Your task to perform on an android device: Open the calendar app, open the side menu, and click the "Day" option Image 0: 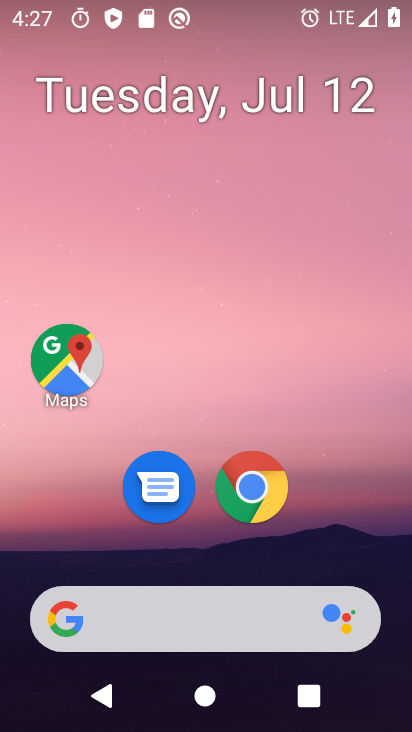
Step 0: drag from (181, 601) to (296, 30)
Your task to perform on an android device: Open the calendar app, open the side menu, and click the "Day" option Image 1: 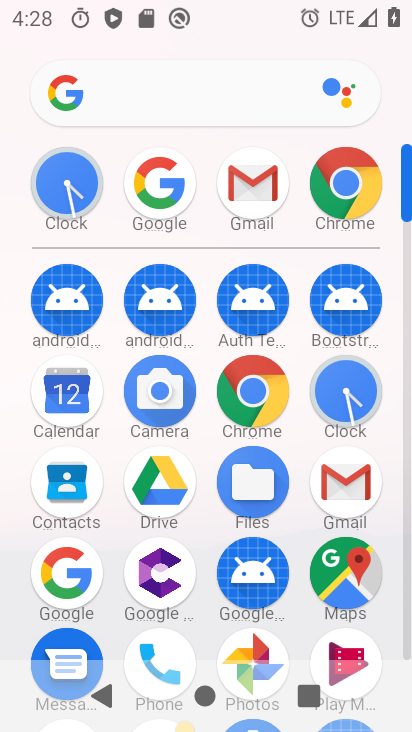
Step 1: drag from (203, 548) to (300, 212)
Your task to perform on an android device: Open the calendar app, open the side menu, and click the "Day" option Image 2: 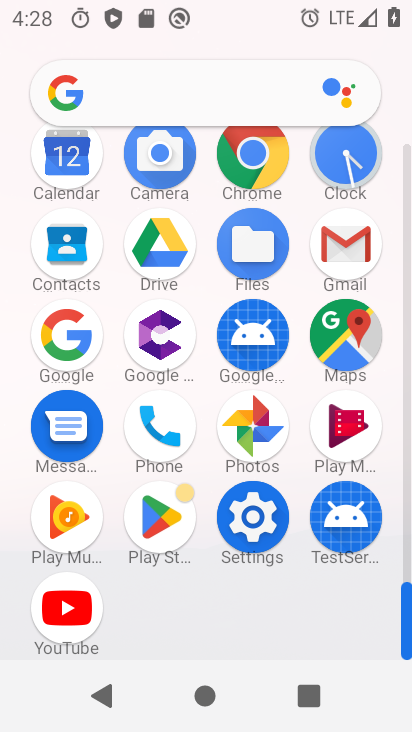
Step 2: drag from (248, 283) to (244, 589)
Your task to perform on an android device: Open the calendar app, open the side menu, and click the "Day" option Image 3: 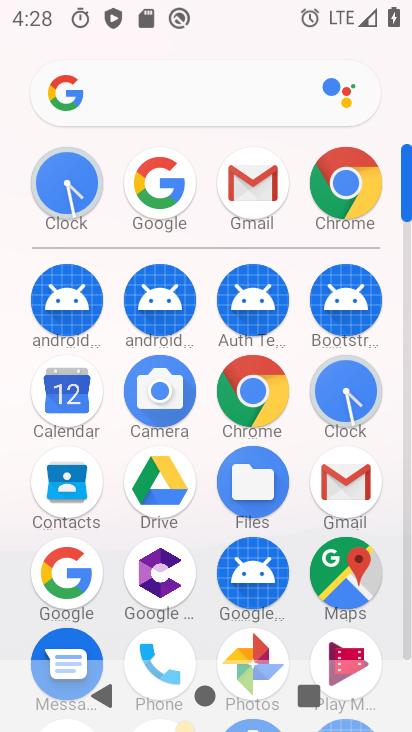
Step 3: click (67, 411)
Your task to perform on an android device: Open the calendar app, open the side menu, and click the "Day" option Image 4: 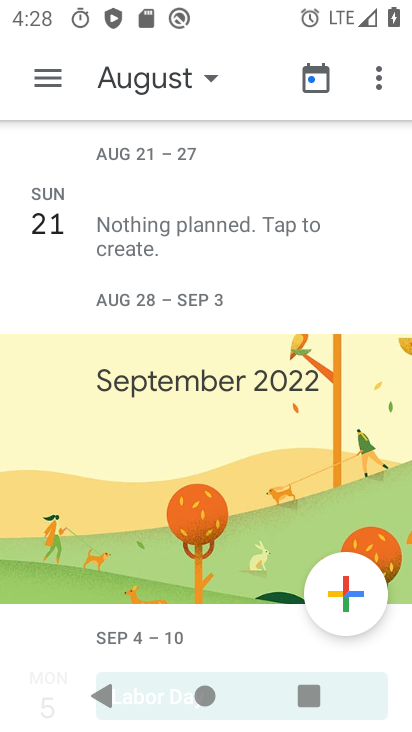
Step 4: click (48, 84)
Your task to perform on an android device: Open the calendar app, open the side menu, and click the "Day" option Image 5: 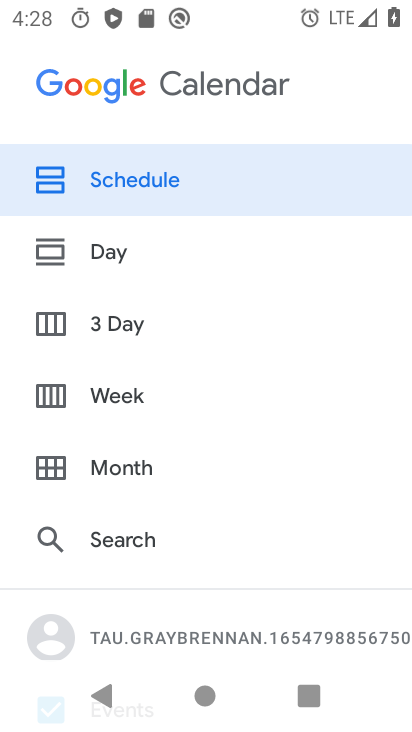
Step 5: click (98, 251)
Your task to perform on an android device: Open the calendar app, open the side menu, and click the "Day" option Image 6: 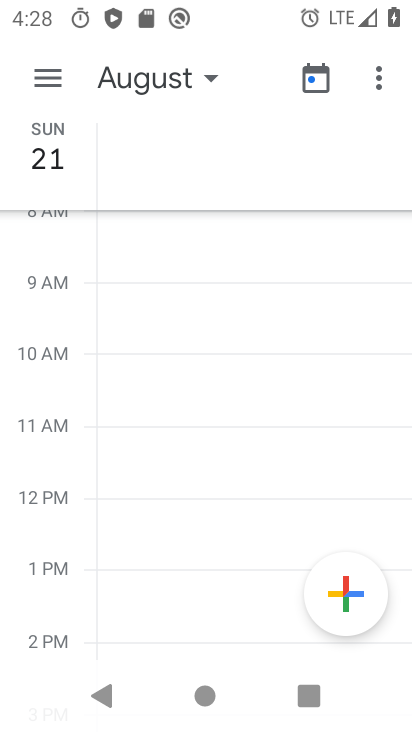
Step 6: click (184, 273)
Your task to perform on an android device: Open the calendar app, open the side menu, and click the "Day" option Image 7: 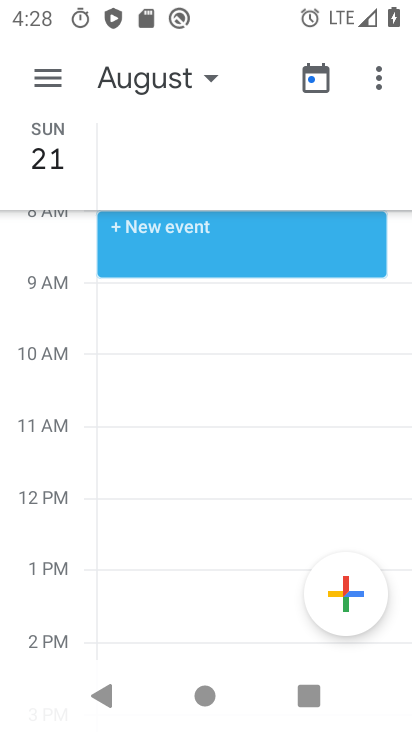
Step 7: task complete